Your task to perform on an android device: Open calendar and show me the third week of next month Image 0: 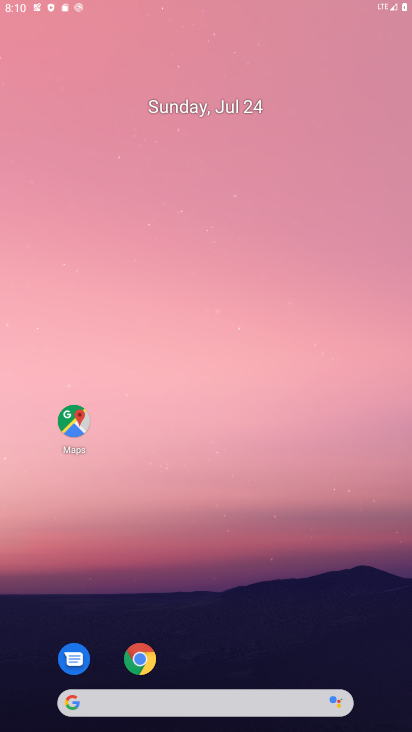
Step 0: press home button
Your task to perform on an android device: Open calendar and show me the third week of next month Image 1: 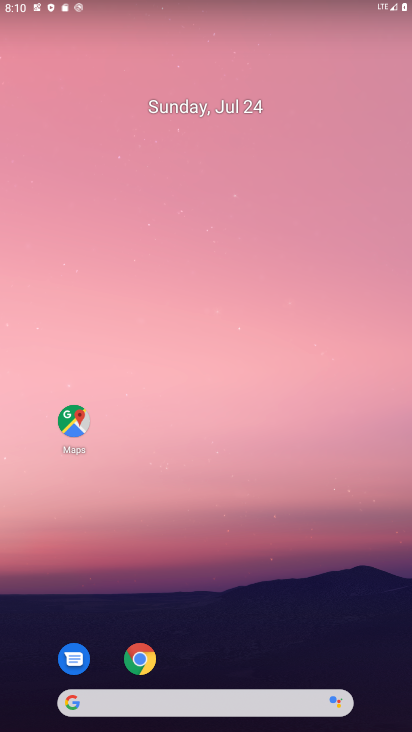
Step 1: drag from (222, 727) to (213, 152)
Your task to perform on an android device: Open calendar and show me the third week of next month Image 2: 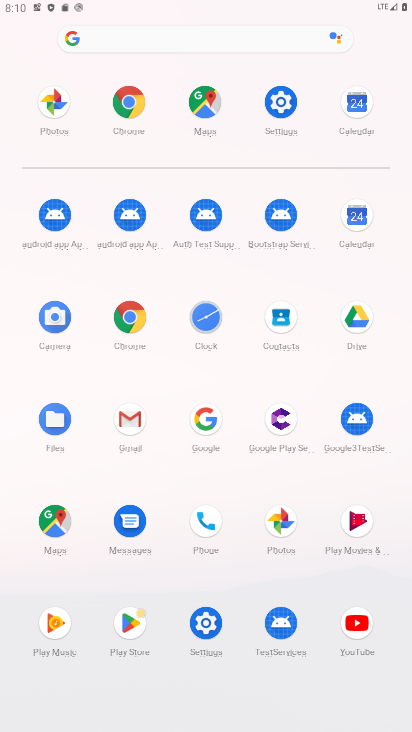
Step 2: click (358, 223)
Your task to perform on an android device: Open calendar and show me the third week of next month Image 3: 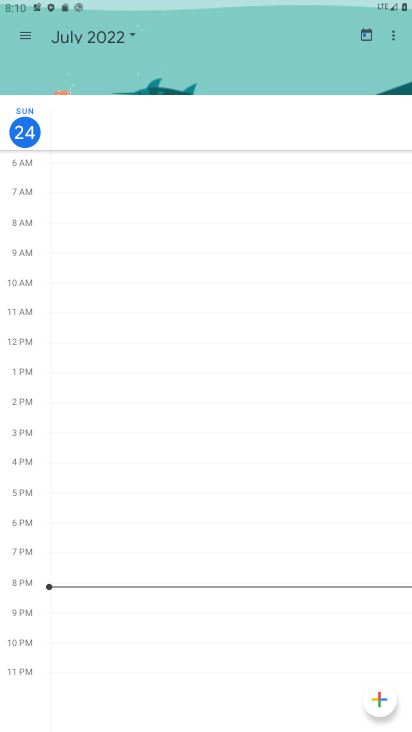
Step 3: click (133, 31)
Your task to perform on an android device: Open calendar and show me the third week of next month Image 4: 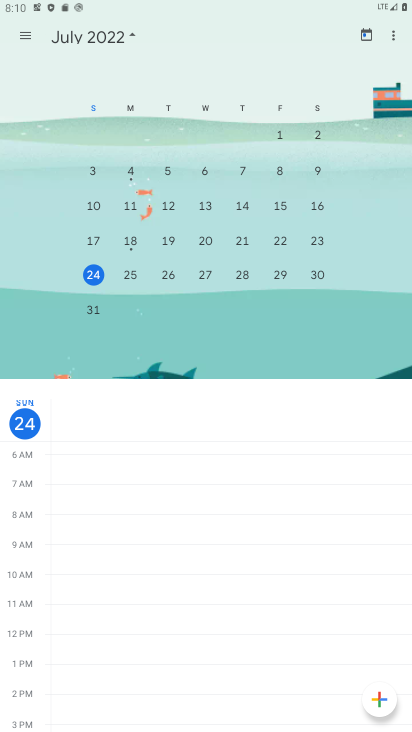
Step 4: drag from (287, 252) to (99, 257)
Your task to perform on an android device: Open calendar and show me the third week of next month Image 5: 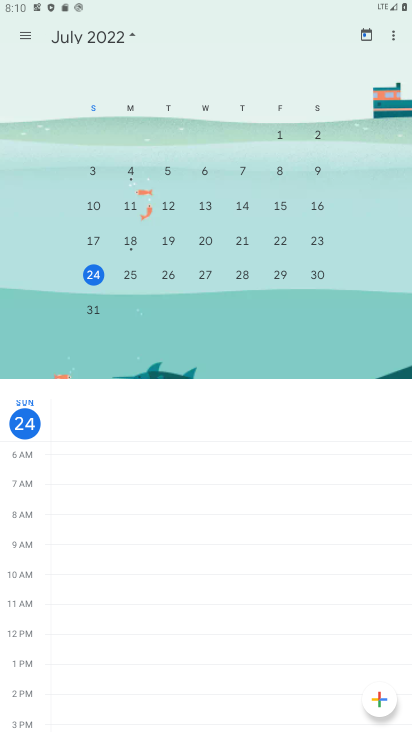
Step 5: drag from (294, 212) to (37, 194)
Your task to perform on an android device: Open calendar and show me the third week of next month Image 6: 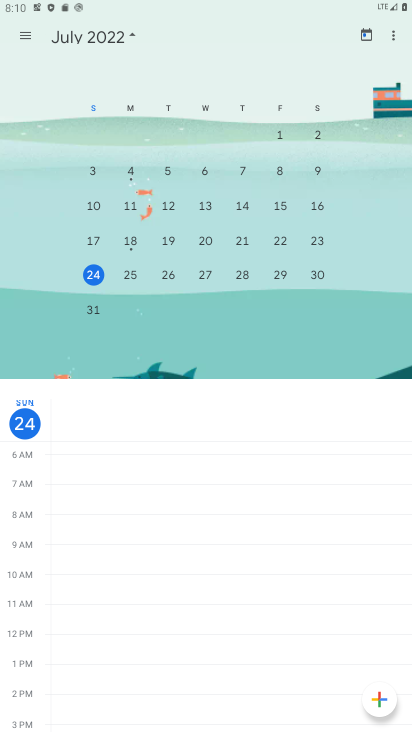
Step 6: drag from (344, 249) to (2, 261)
Your task to perform on an android device: Open calendar and show me the third week of next month Image 7: 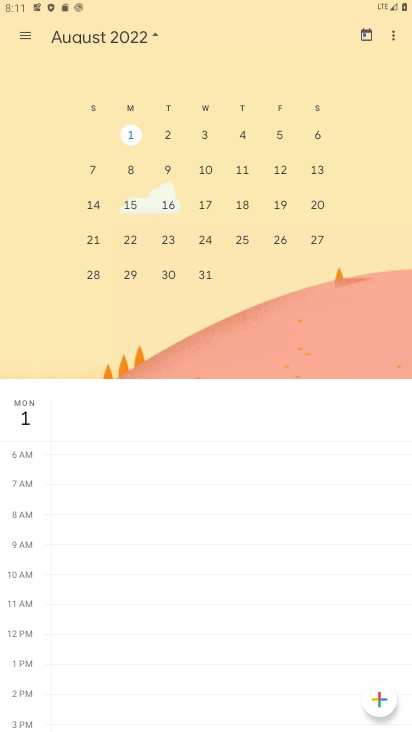
Step 7: click (131, 201)
Your task to perform on an android device: Open calendar and show me the third week of next month Image 8: 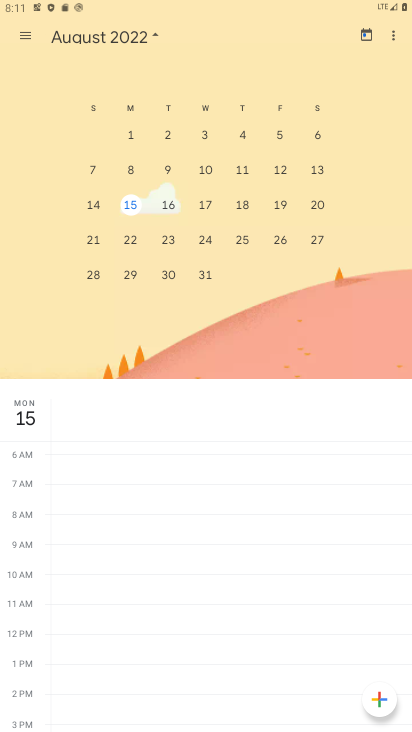
Step 8: click (28, 37)
Your task to perform on an android device: Open calendar and show me the third week of next month Image 9: 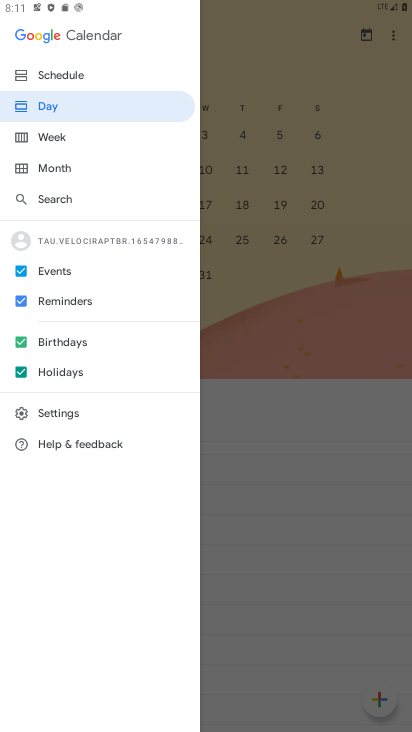
Step 9: click (56, 132)
Your task to perform on an android device: Open calendar and show me the third week of next month Image 10: 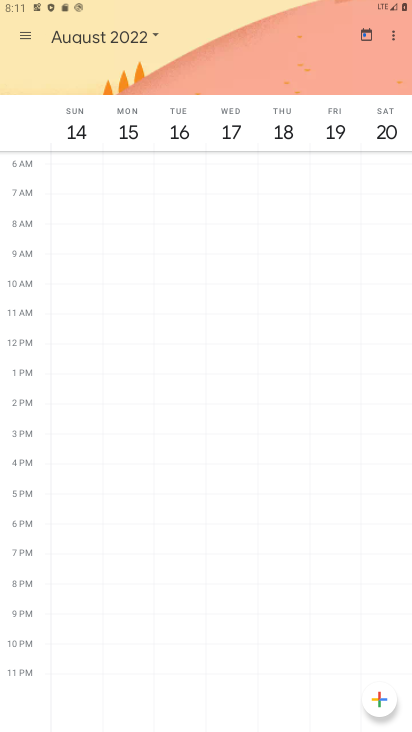
Step 10: task complete